Your task to perform on an android device: uninstall "Lyft - Rideshare, Bikes, Scooters & Transit" Image 0: 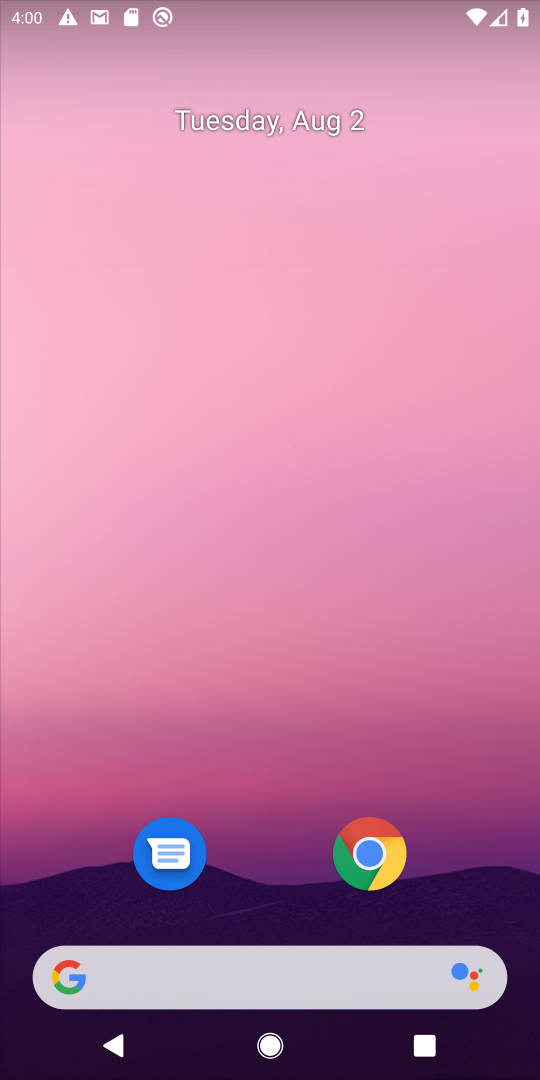
Step 0: drag from (324, 977) to (326, 133)
Your task to perform on an android device: uninstall "Lyft - Rideshare, Bikes, Scooters & Transit" Image 1: 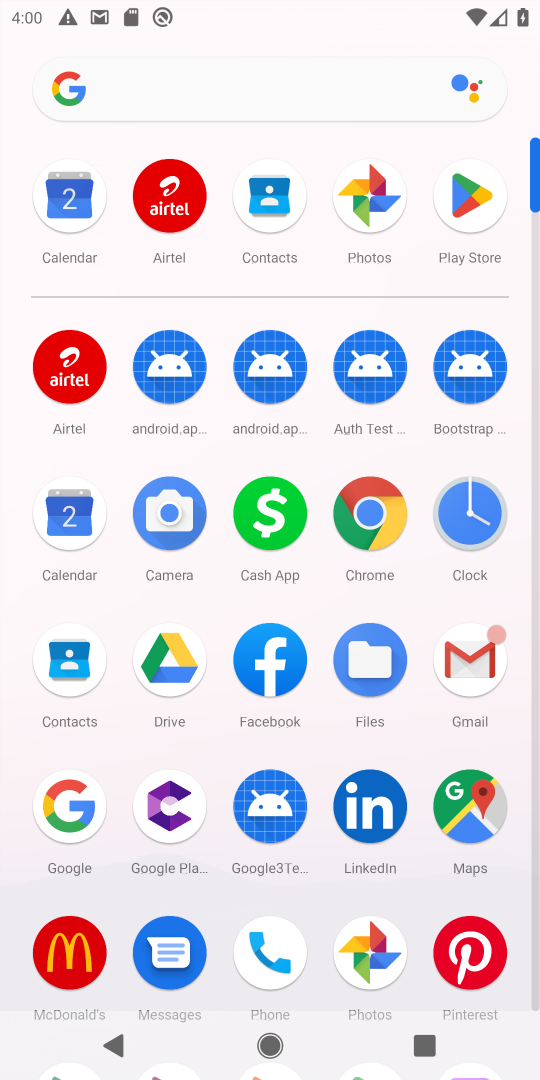
Step 1: click (466, 198)
Your task to perform on an android device: uninstall "Lyft - Rideshare, Bikes, Scooters & Transit" Image 2: 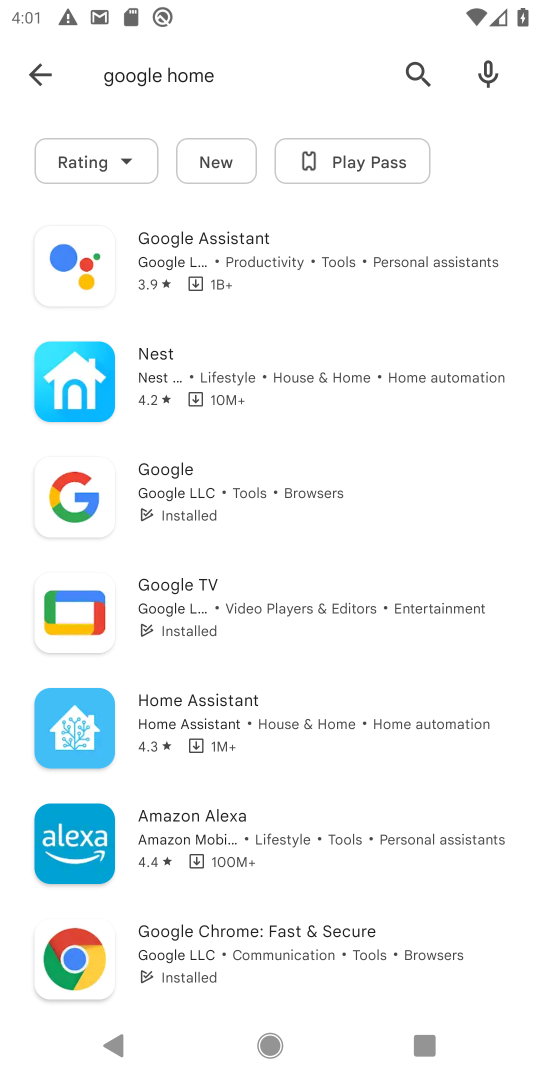
Step 2: click (413, 72)
Your task to perform on an android device: uninstall "Lyft - Rideshare, Bikes, Scooters & Transit" Image 3: 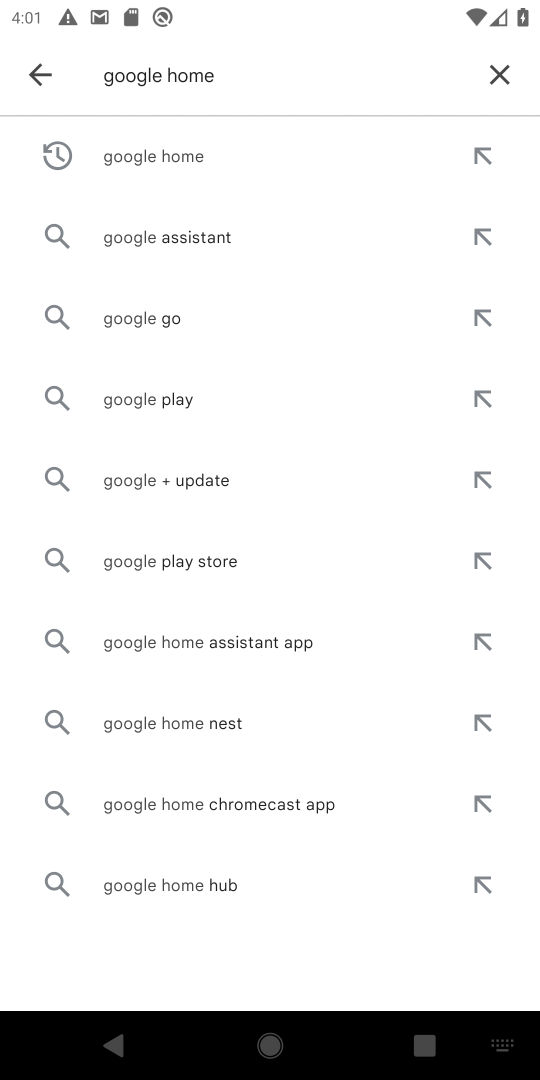
Step 3: click (502, 69)
Your task to perform on an android device: uninstall "Lyft - Rideshare, Bikes, Scooters & Transit" Image 4: 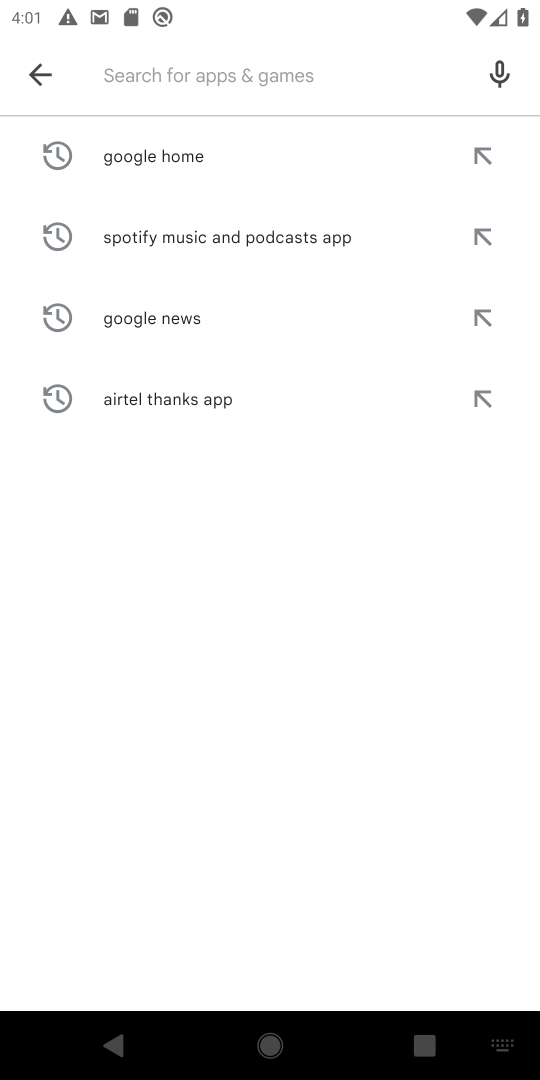
Step 4: type "Lyft - Rideshare, Bikes, Scooters & Transit"
Your task to perform on an android device: uninstall "Lyft - Rideshare, Bikes, Scooters & Transit" Image 5: 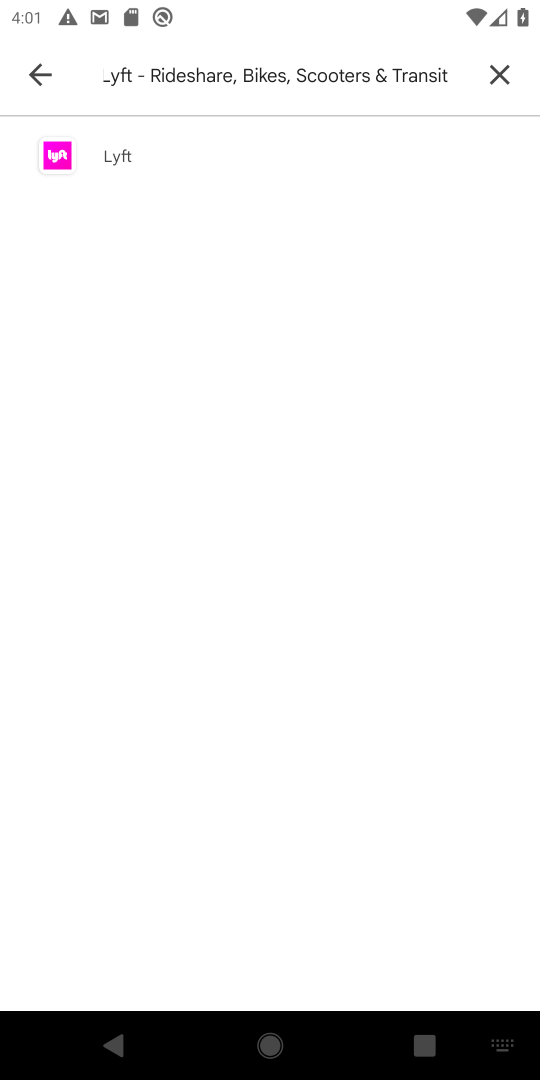
Step 5: click (110, 157)
Your task to perform on an android device: uninstall "Lyft - Rideshare, Bikes, Scooters & Transit" Image 6: 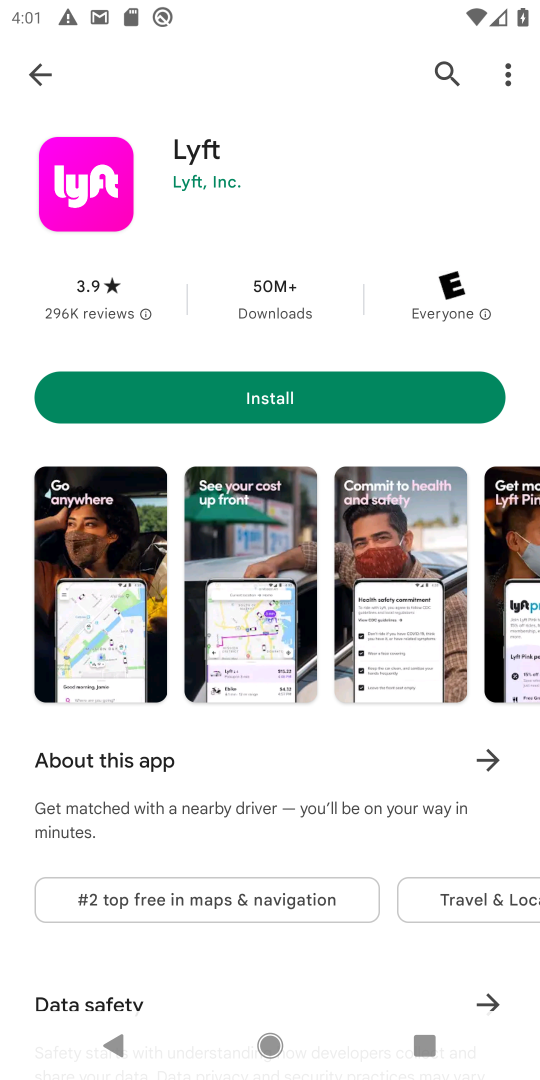
Step 6: task complete